Your task to perform on an android device: Add dell alienware to the cart on target.com, then select checkout. Image 0: 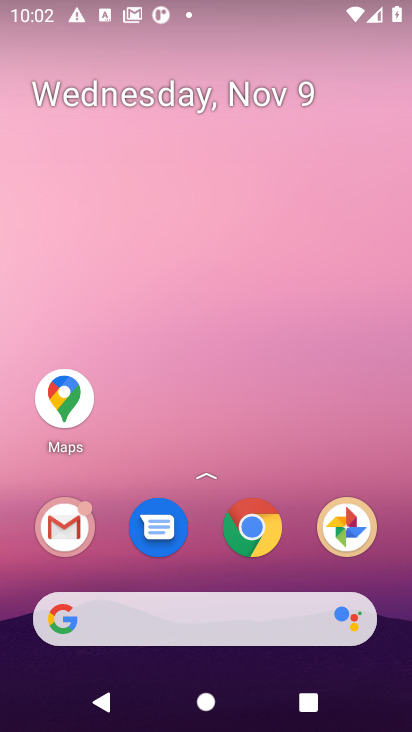
Step 0: click (258, 529)
Your task to perform on an android device: Add dell alienware to the cart on target.com, then select checkout. Image 1: 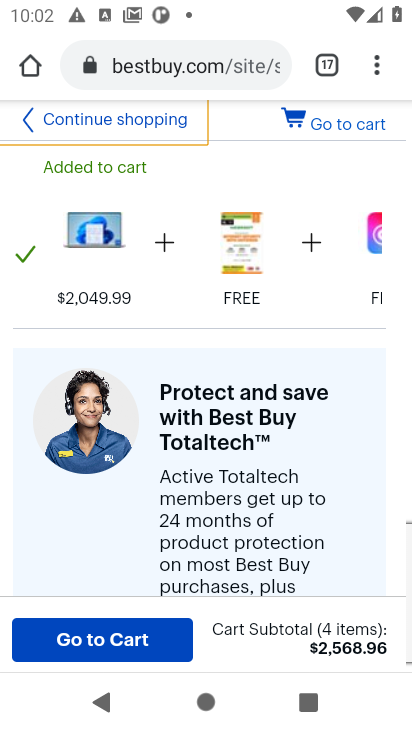
Step 1: click (183, 57)
Your task to perform on an android device: Add dell alienware to the cart on target.com, then select checkout. Image 2: 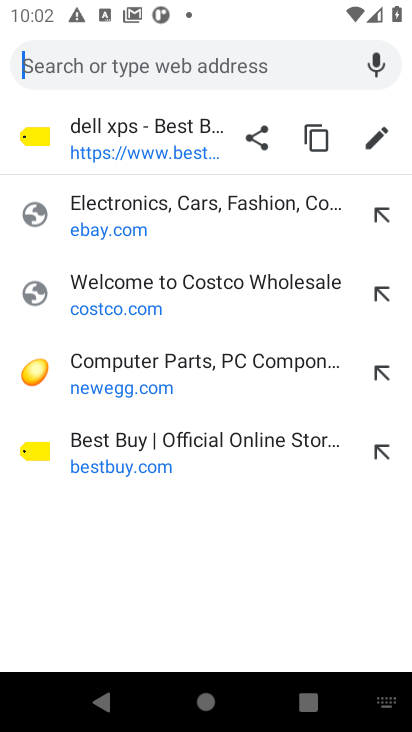
Step 2: type "target.com"
Your task to perform on an android device: Add dell alienware to the cart on target.com, then select checkout. Image 3: 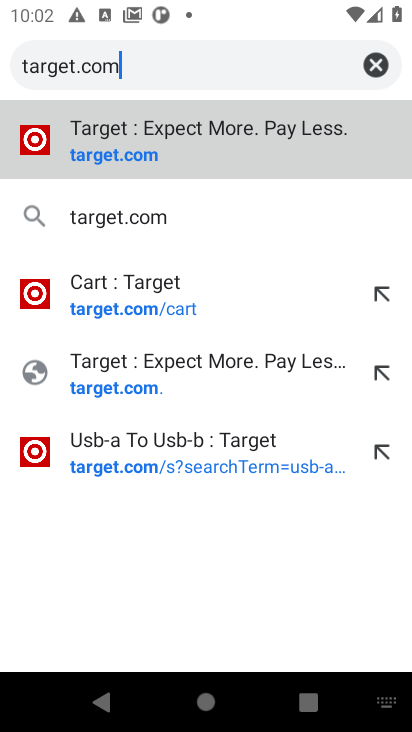
Step 3: click (106, 154)
Your task to perform on an android device: Add dell alienware to the cart on target.com, then select checkout. Image 4: 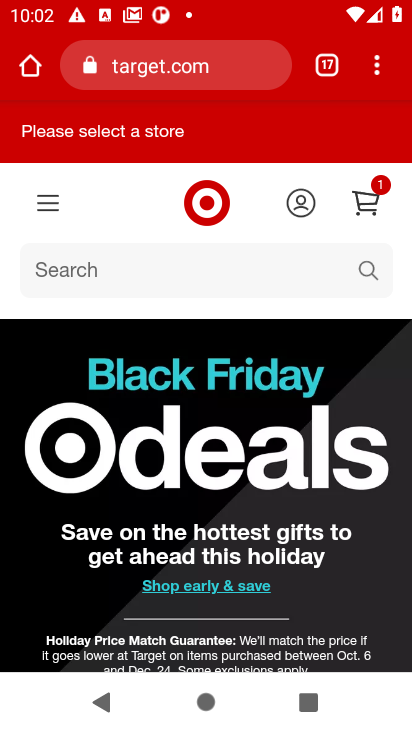
Step 4: click (379, 273)
Your task to perform on an android device: Add dell alienware to the cart on target.com, then select checkout. Image 5: 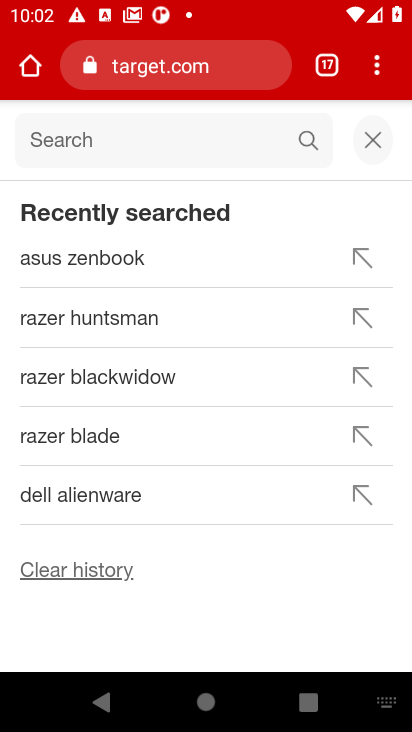
Step 5: type "dell alienware"
Your task to perform on an android device: Add dell alienware to the cart on target.com, then select checkout. Image 6: 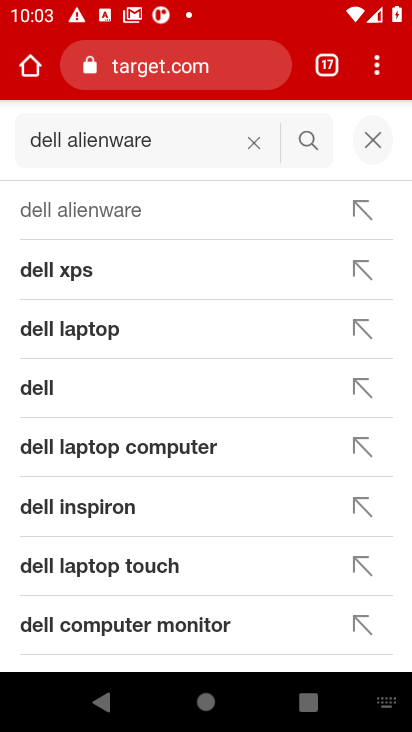
Step 6: click (121, 210)
Your task to perform on an android device: Add dell alienware to the cart on target.com, then select checkout. Image 7: 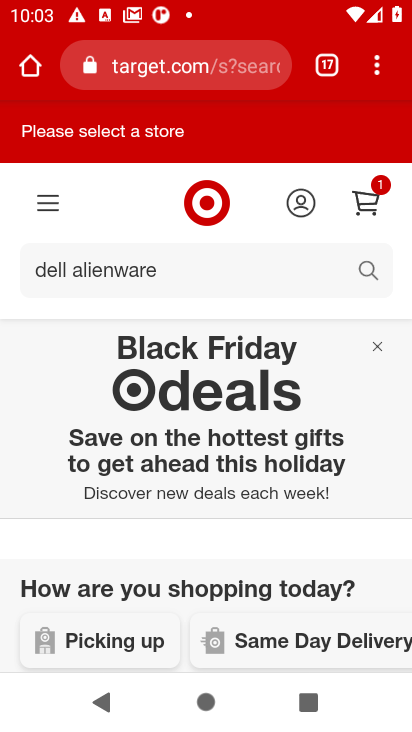
Step 7: task complete